Your task to perform on an android device: Open Android settings Image 0: 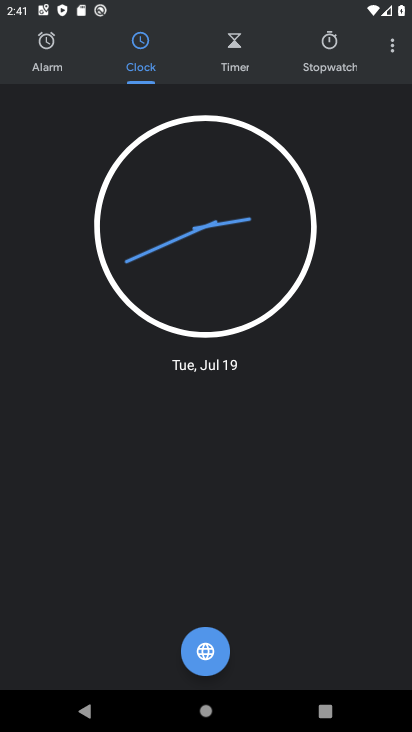
Step 0: press home button
Your task to perform on an android device: Open Android settings Image 1: 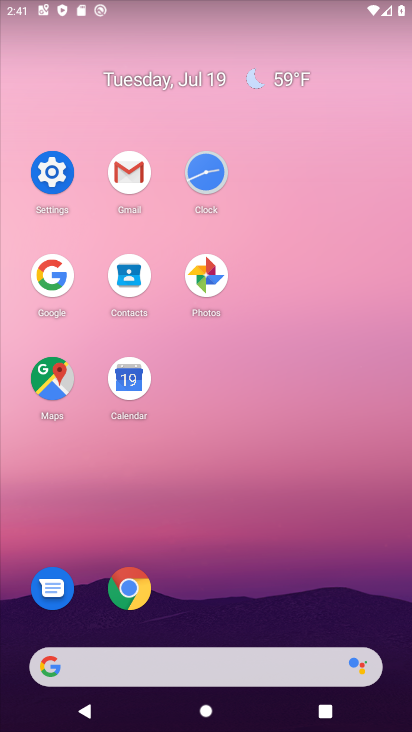
Step 1: click (49, 167)
Your task to perform on an android device: Open Android settings Image 2: 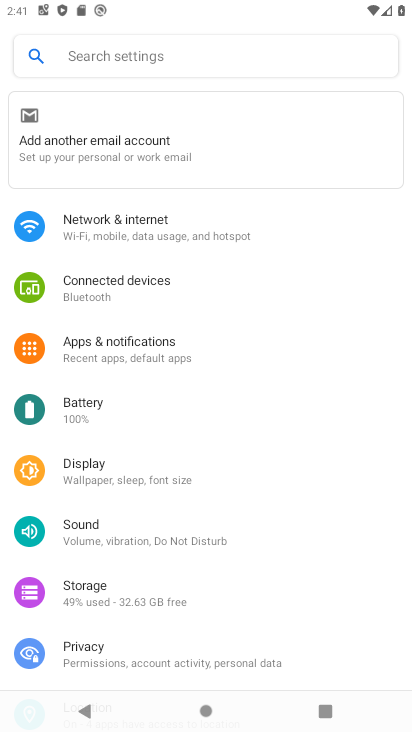
Step 2: task complete